Your task to perform on an android device: add a contact Image 0: 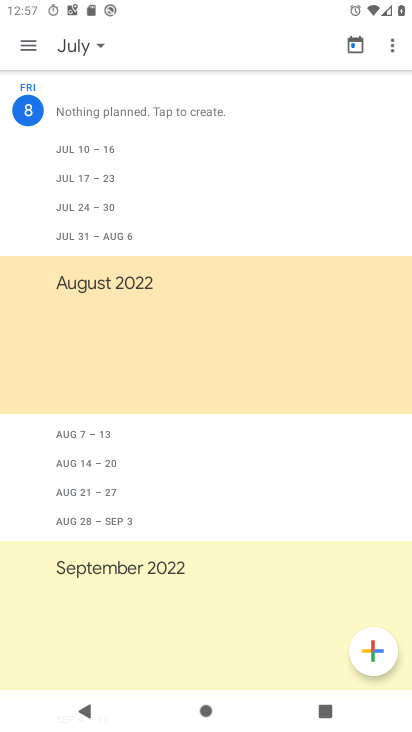
Step 0: press home button
Your task to perform on an android device: add a contact Image 1: 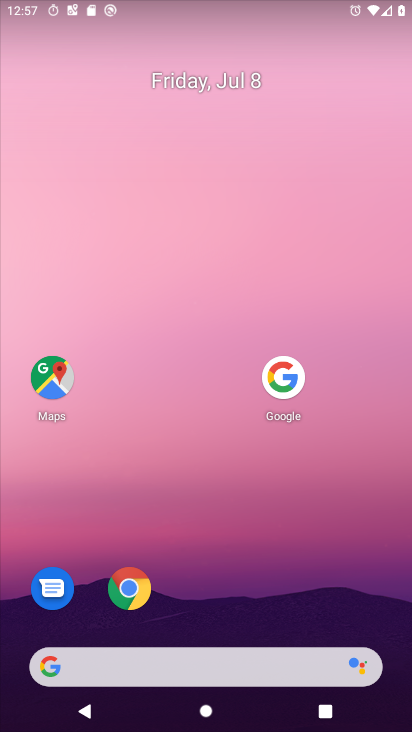
Step 1: drag from (162, 662) to (277, 141)
Your task to perform on an android device: add a contact Image 2: 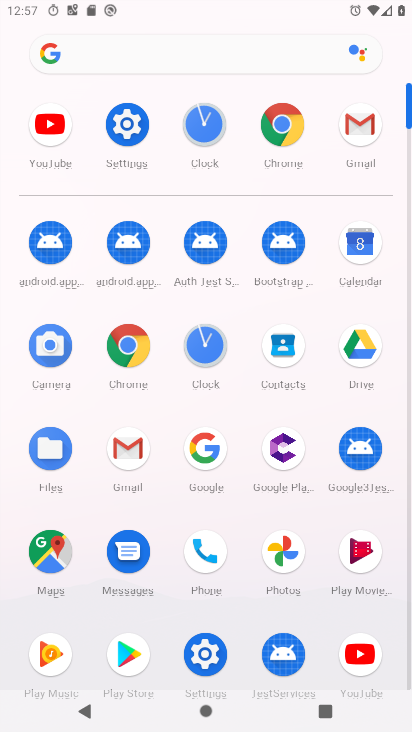
Step 2: click (283, 346)
Your task to perform on an android device: add a contact Image 3: 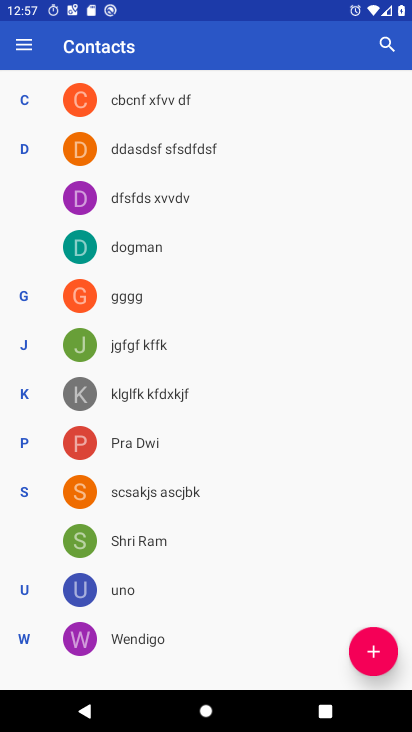
Step 3: click (356, 649)
Your task to perform on an android device: add a contact Image 4: 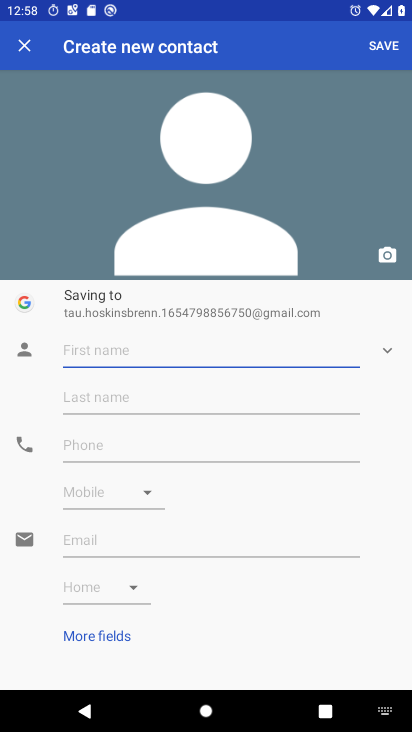
Step 4: type "whrytngnv"
Your task to perform on an android device: add a contact Image 5: 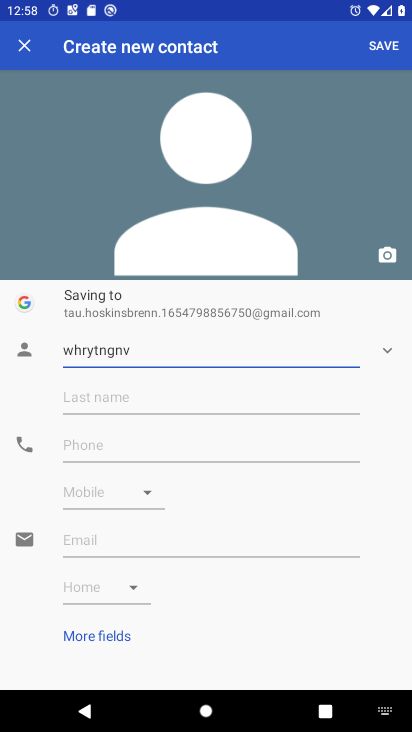
Step 5: click (97, 440)
Your task to perform on an android device: add a contact Image 6: 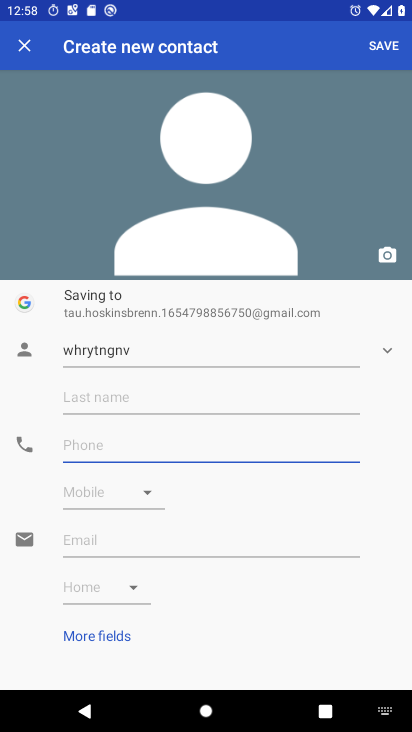
Step 6: type "57346578298347"
Your task to perform on an android device: add a contact Image 7: 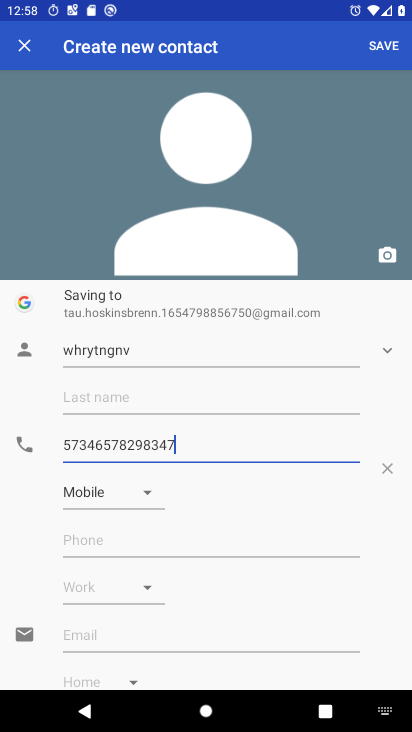
Step 7: click (390, 46)
Your task to perform on an android device: add a contact Image 8: 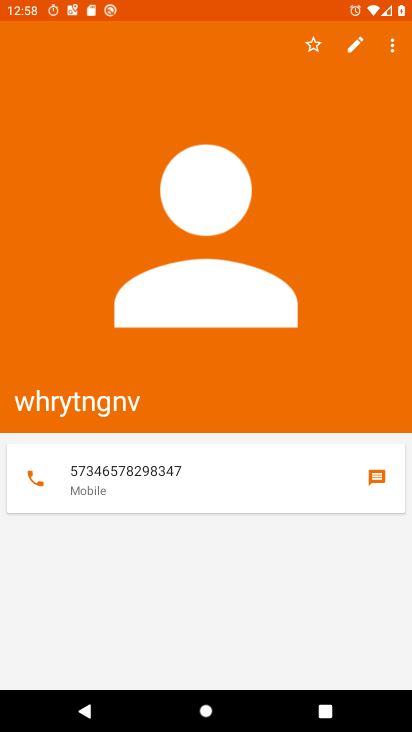
Step 8: task complete